Your task to perform on an android device: add a contact in the contacts app Image 0: 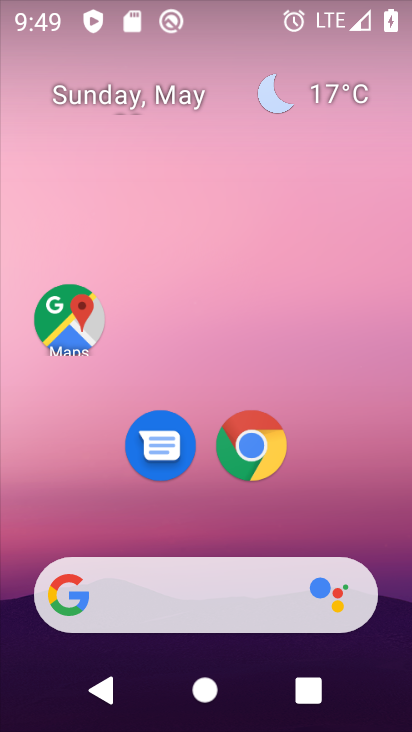
Step 0: drag from (222, 386) to (297, 56)
Your task to perform on an android device: add a contact in the contacts app Image 1: 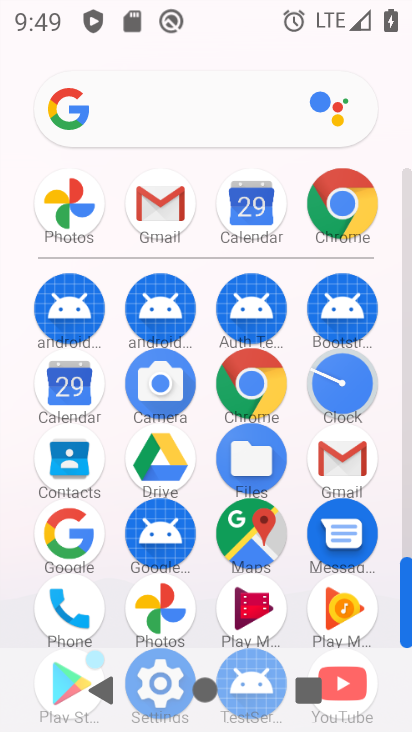
Step 1: click (69, 467)
Your task to perform on an android device: add a contact in the contacts app Image 2: 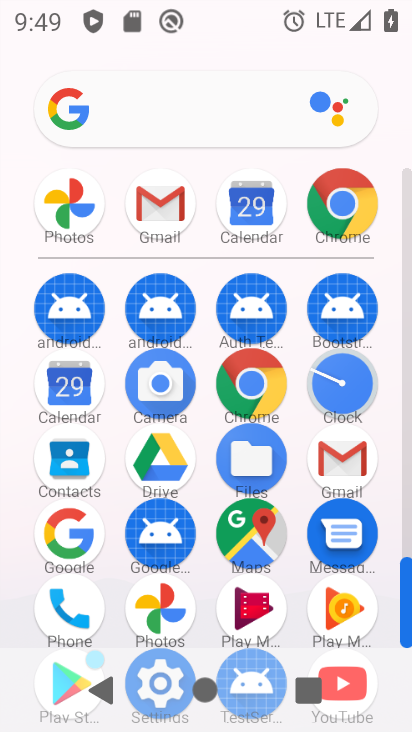
Step 2: click (69, 467)
Your task to perform on an android device: add a contact in the contacts app Image 3: 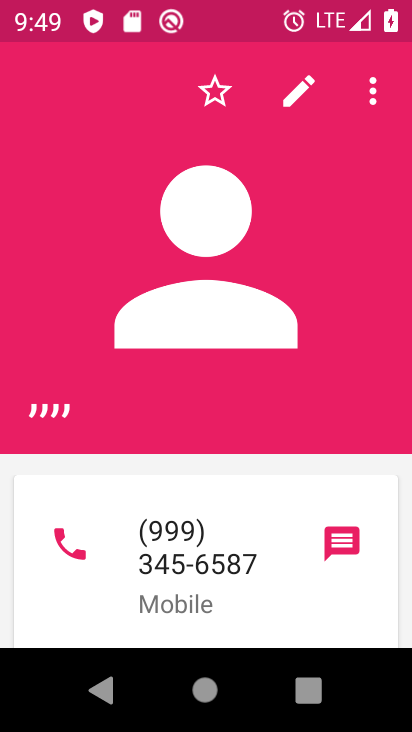
Step 3: press back button
Your task to perform on an android device: add a contact in the contacts app Image 4: 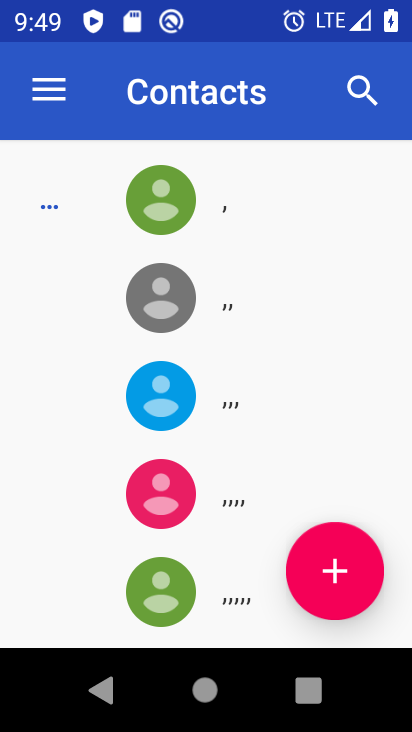
Step 4: click (343, 542)
Your task to perform on an android device: add a contact in the contacts app Image 5: 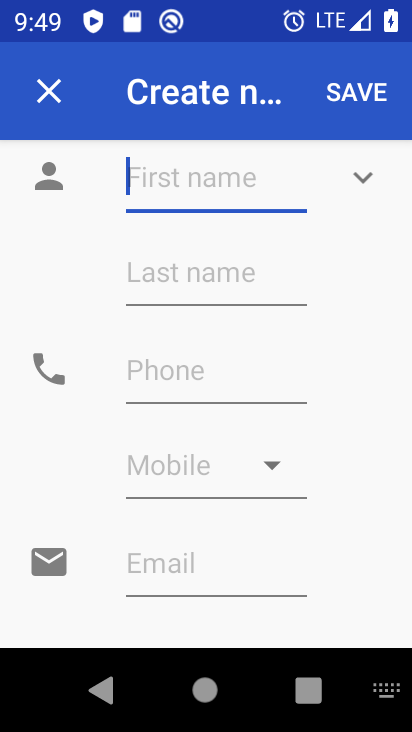
Step 5: type "mkalsa"
Your task to perform on an android device: add a contact in the contacts app Image 6: 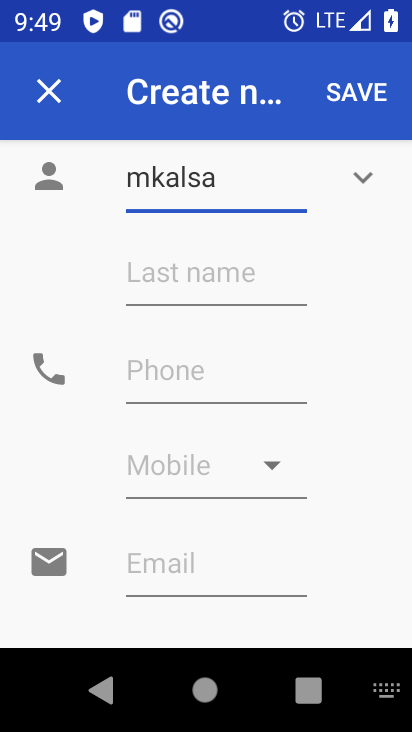
Step 6: click (348, 85)
Your task to perform on an android device: add a contact in the contacts app Image 7: 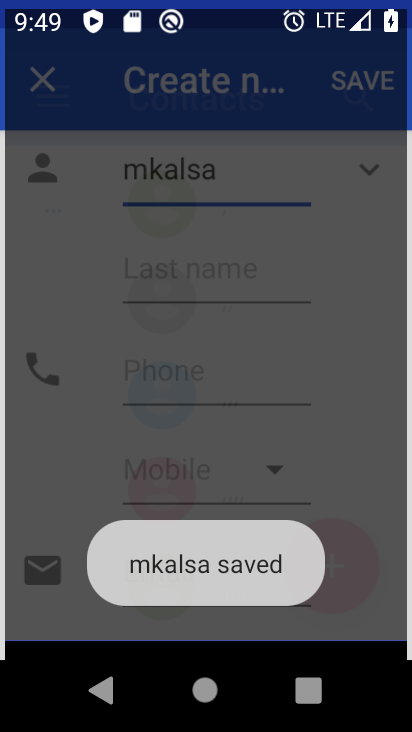
Step 7: task complete